Your task to perform on an android device: delete browsing data in the chrome app Image 0: 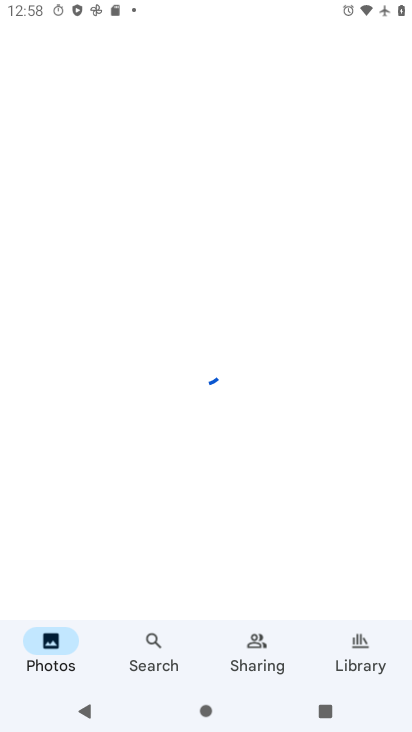
Step 0: press home button
Your task to perform on an android device: delete browsing data in the chrome app Image 1: 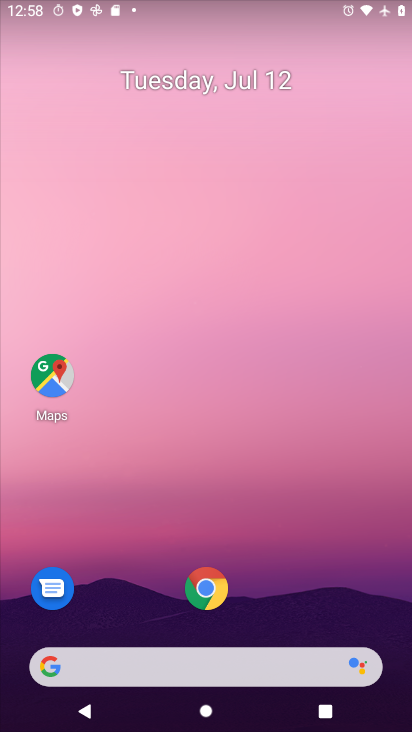
Step 1: click (214, 582)
Your task to perform on an android device: delete browsing data in the chrome app Image 2: 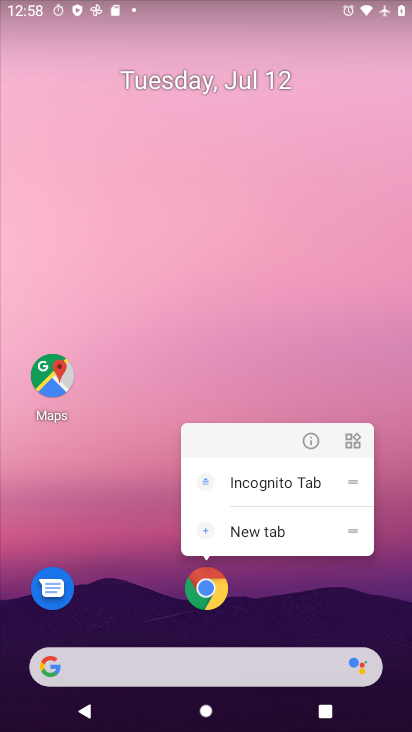
Step 2: click (202, 595)
Your task to perform on an android device: delete browsing data in the chrome app Image 3: 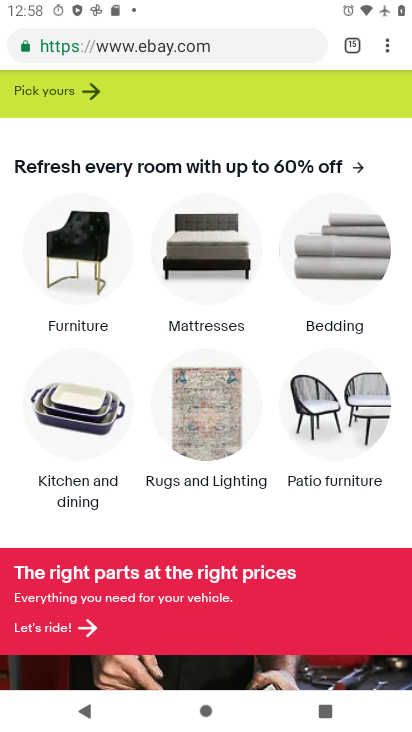
Step 3: drag from (388, 47) to (264, 552)
Your task to perform on an android device: delete browsing data in the chrome app Image 4: 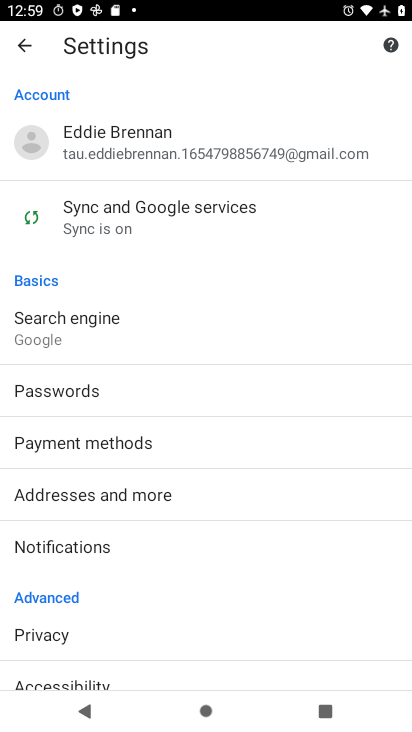
Step 4: click (55, 639)
Your task to perform on an android device: delete browsing data in the chrome app Image 5: 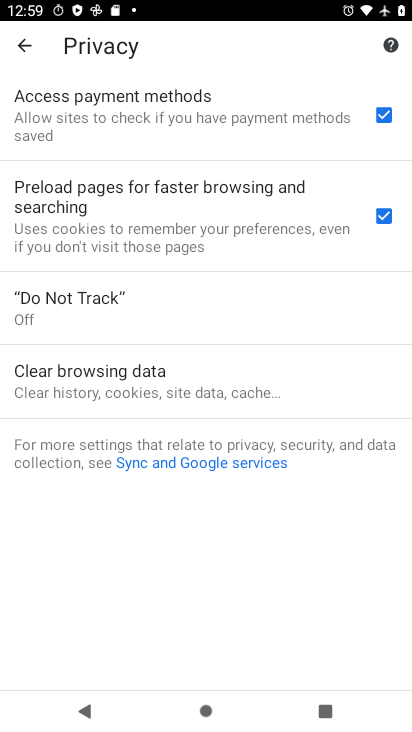
Step 5: click (174, 387)
Your task to perform on an android device: delete browsing data in the chrome app Image 6: 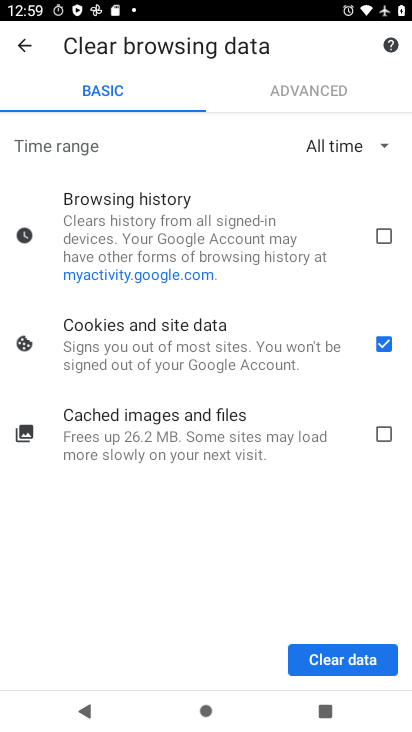
Step 6: click (383, 235)
Your task to perform on an android device: delete browsing data in the chrome app Image 7: 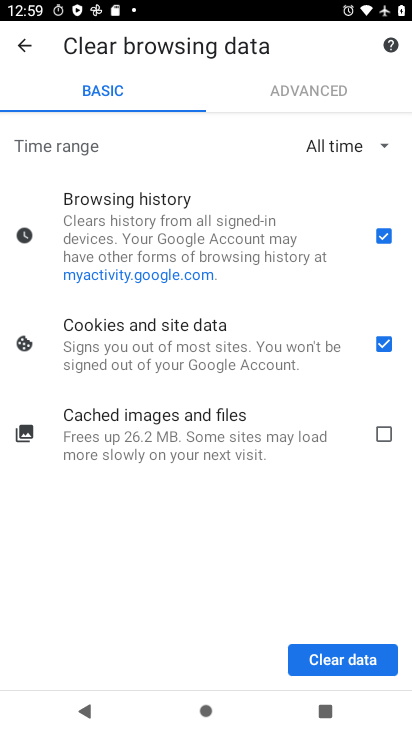
Step 7: click (388, 443)
Your task to perform on an android device: delete browsing data in the chrome app Image 8: 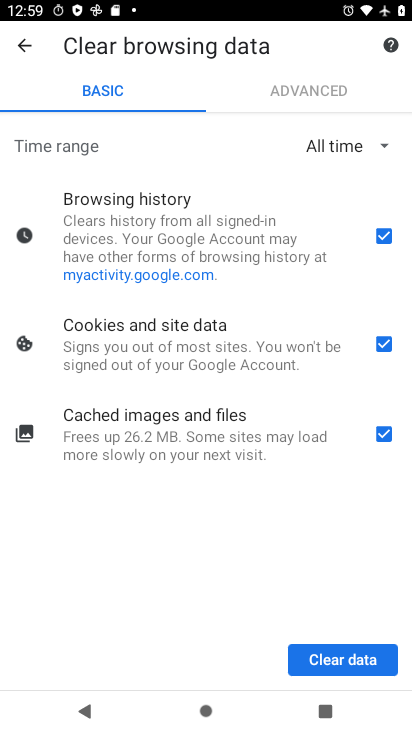
Step 8: click (334, 660)
Your task to perform on an android device: delete browsing data in the chrome app Image 9: 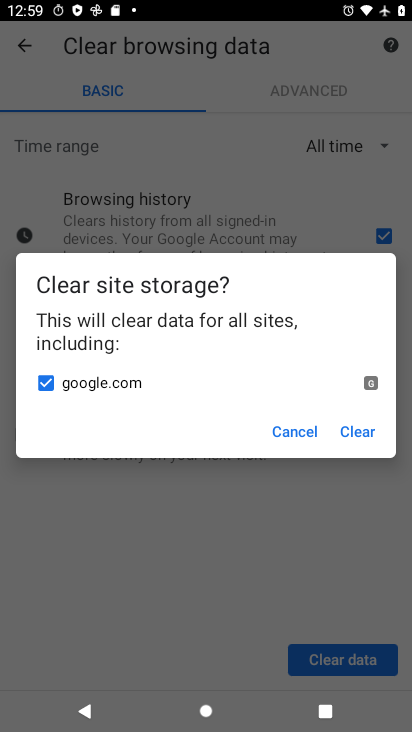
Step 9: click (371, 430)
Your task to perform on an android device: delete browsing data in the chrome app Image 10: 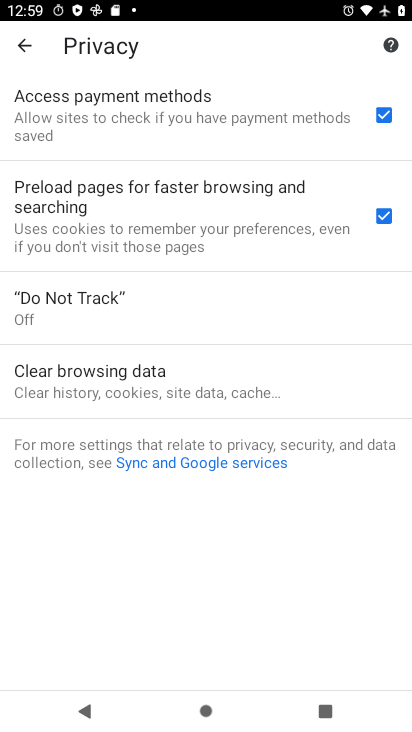
Step 10: task complete